Your task to perform on an android device: delete a single message in the gmail app Image 0: 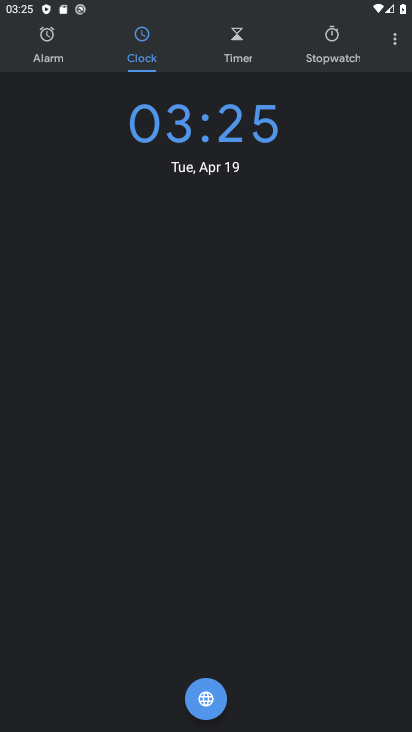
Step 0: press home button
Your task to perform on an android device: delete a single message in the gmail app Image 1: 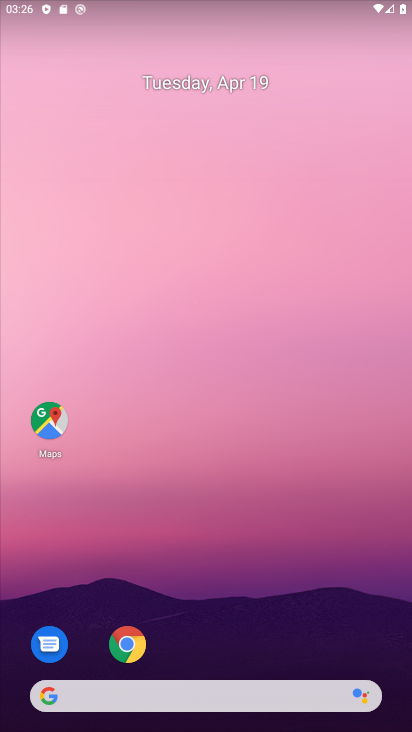
Step 1: drag from (356, 627) to (292, 142)
Your task to perform on an android device: delete a single message in the gmail app Image 2: 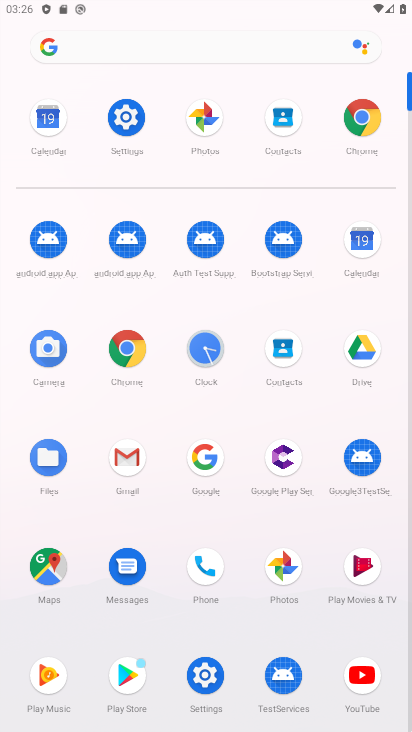
Step 2: click (125, 455)
Your task to perform on an android device: delete a single message in the gmail app Image 3: 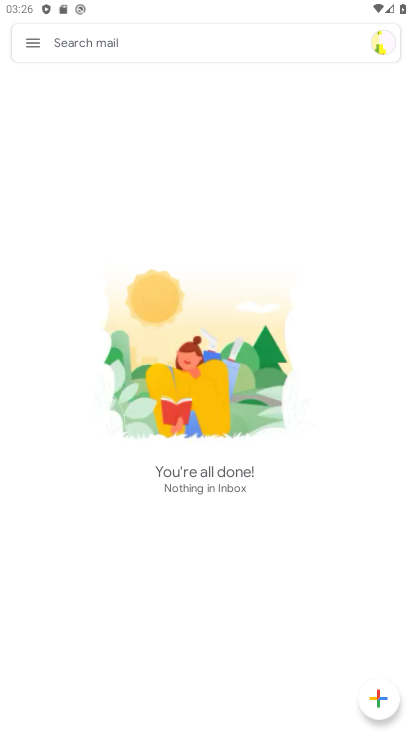
Step 3: click (32, 43)
Your task to perform on an android device: delete a single message in the gmail app Image 4: 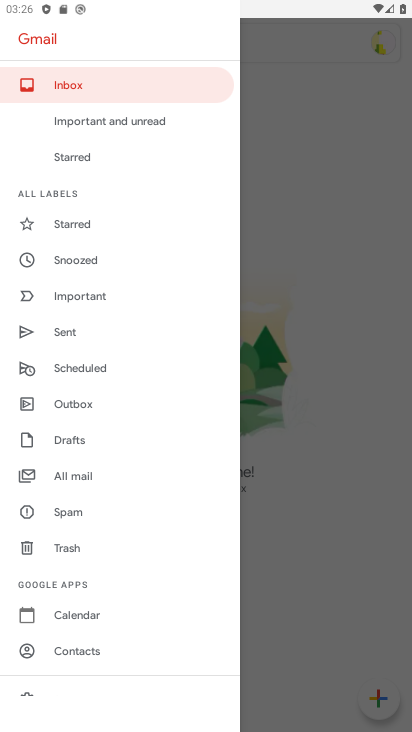
Step 4: click (79, 477)
Your task to perform on an android device: delete a single message in the gmail app Image 5: 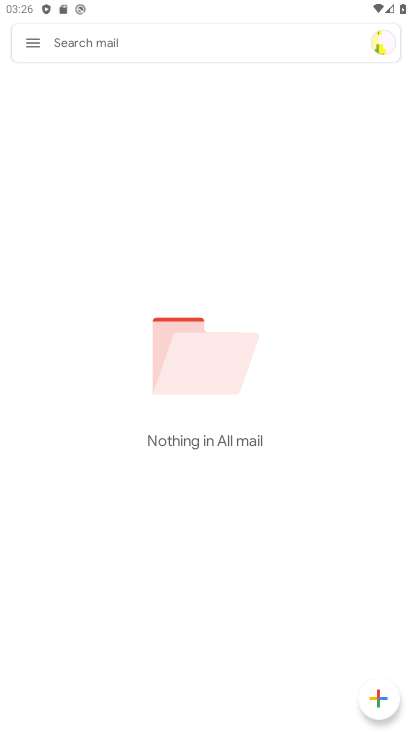
Step 5: task complete